Your task to perform on an android device: Search for seafood restaurants on Google Maps Image 0: 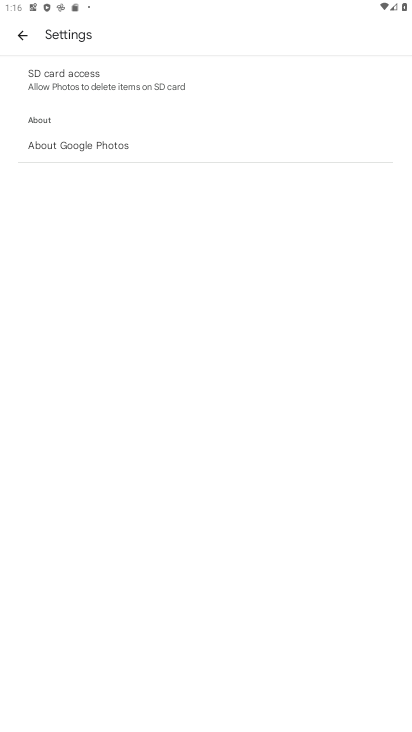
Step 0: press home button
Your task to perform on an android device: Search for seafood restaurants on Google Maps Image 1: 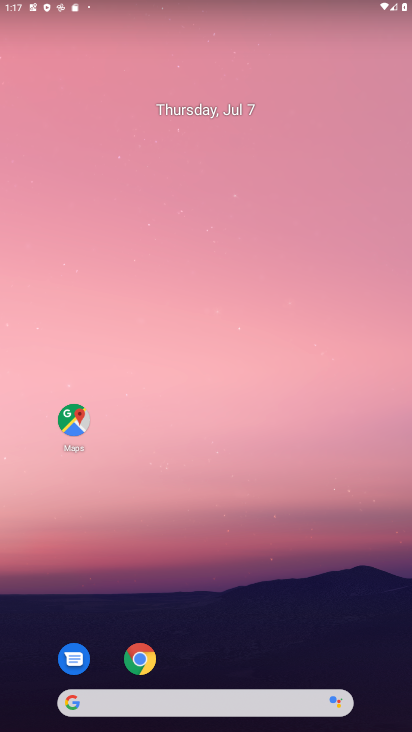
Step 1: click (70, 423)
Your task to perform on an android device: Search for seafood restaurants on Google Maps Image 2: 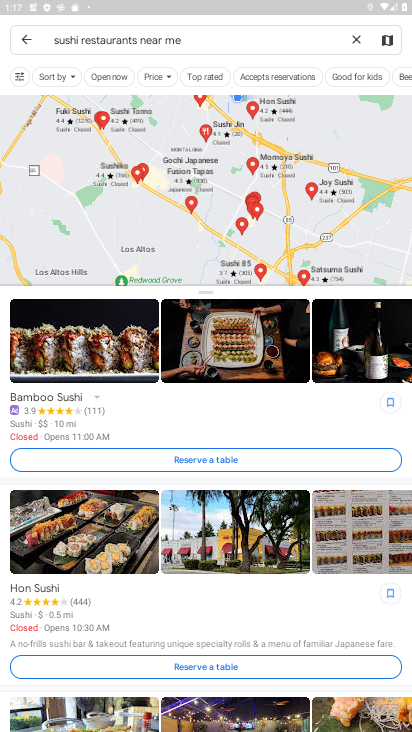
Step 2: click (26, 40)
Your task to perform on an android device: Search for seafood restaurants on Google Maps Image 3: 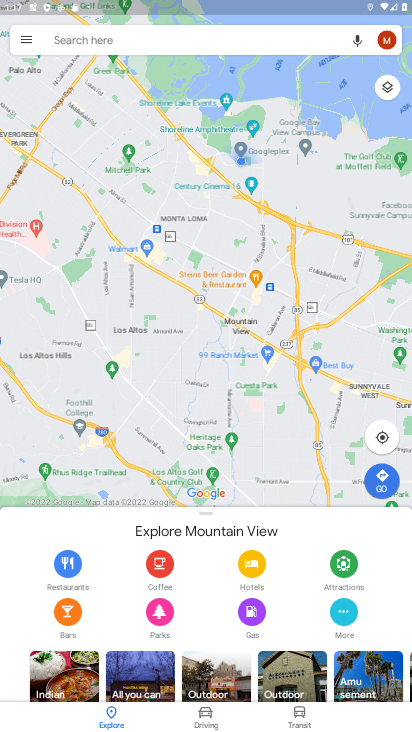
Step 3: click (98, 40)
Your task to perform on an android device: Search for seafood restaurants on Google Maps Image 4: 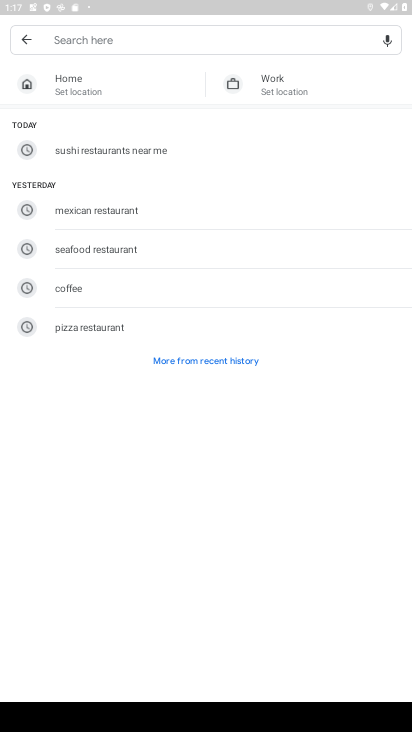
Step 4: type "seafood restaurants"
Your task to perform on an android device: Search for seafood restaurants on Google Maps Image 5: 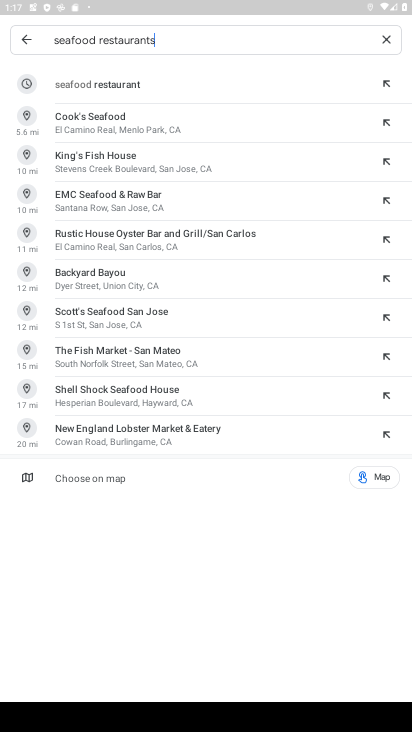
Step 5: click (97, 88)
Your task to perform on an android device: Search for seafood restaurants on Google Maps Image 6: 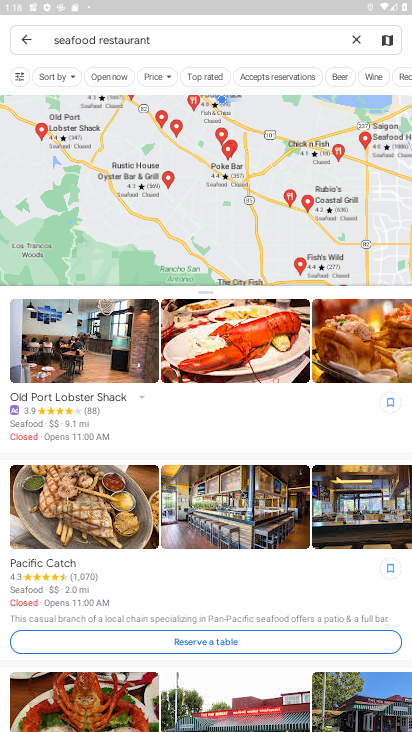
Step 6: task complete